Your task to perform on an android device: Go to Android settings Image 0: 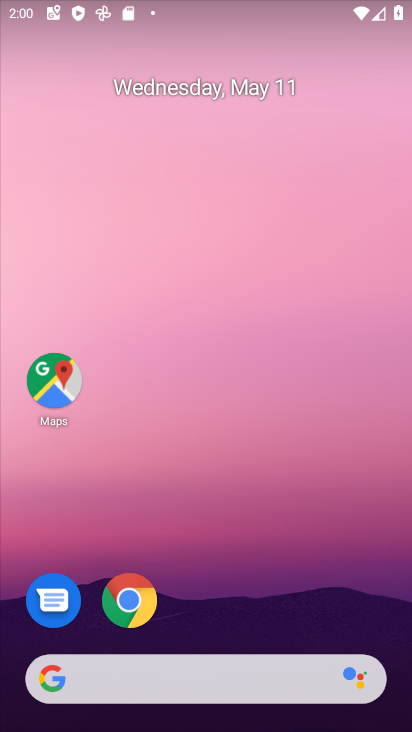
Step 0: drag from (202, 719) to (349, 71)
Your task to perform on an android device: Go to Android settings Image 1: 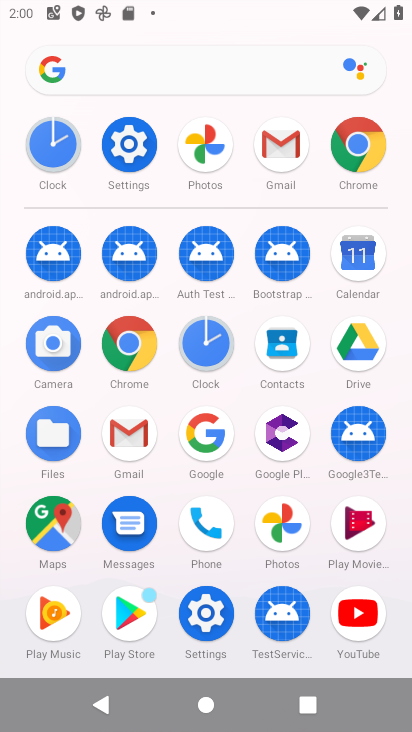
Step 1: click (129, 147)
Your task to perform on an android device: Go to Android settings Image 2: 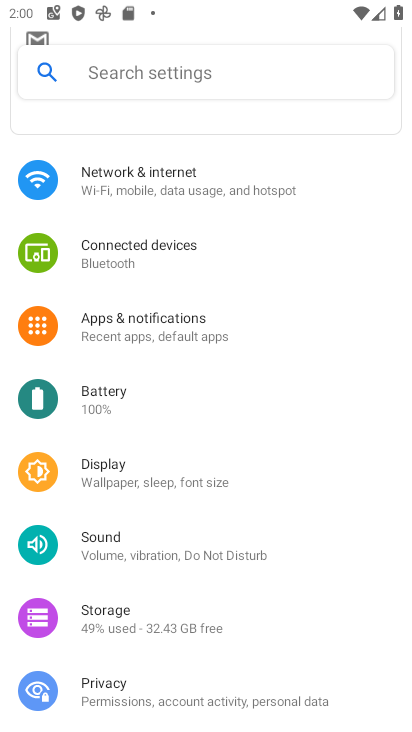
Step 2: task complete